Your task to perform on an android device: turn on javascript in the chrome app Image 0: 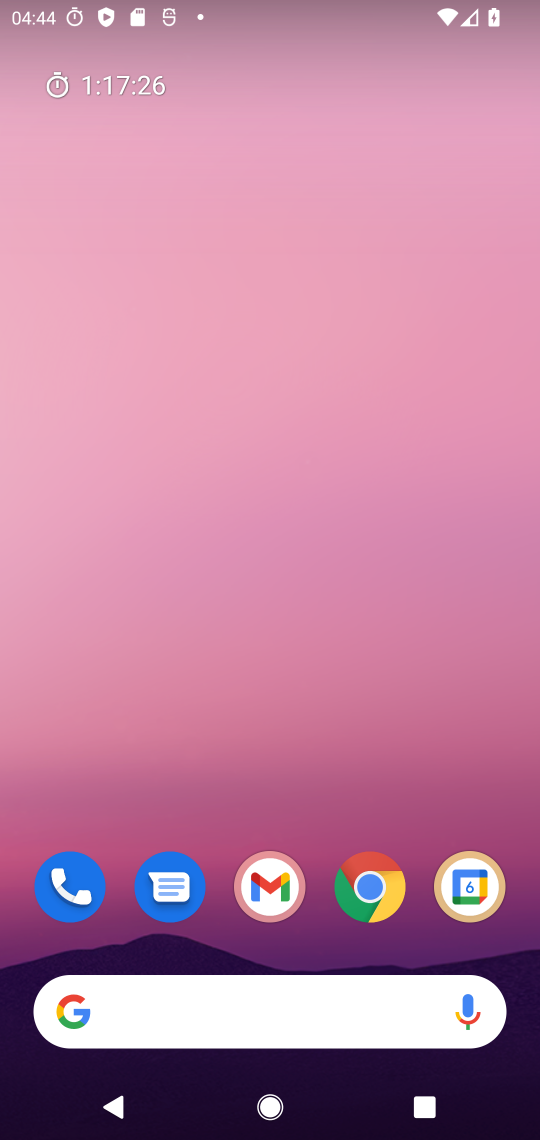
Step 0: press home button
Your task to perform on an android device: turn on javascript in the chrome app Image 1: 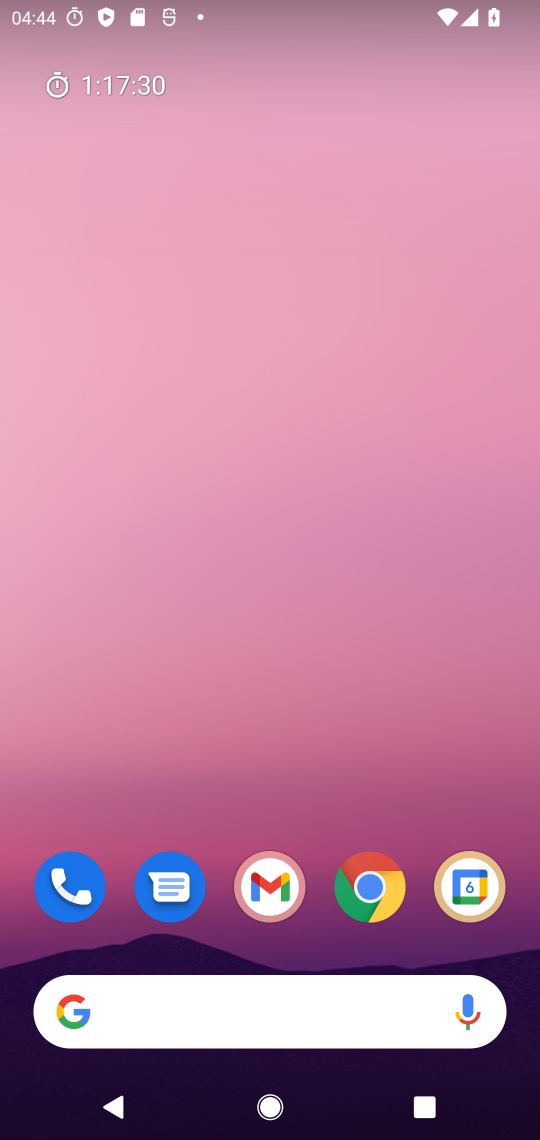
Step 1: drag from (385, 716) to (348, 222)
Your task to perform on an android device: turn on javascript in the chrome app Image 2: 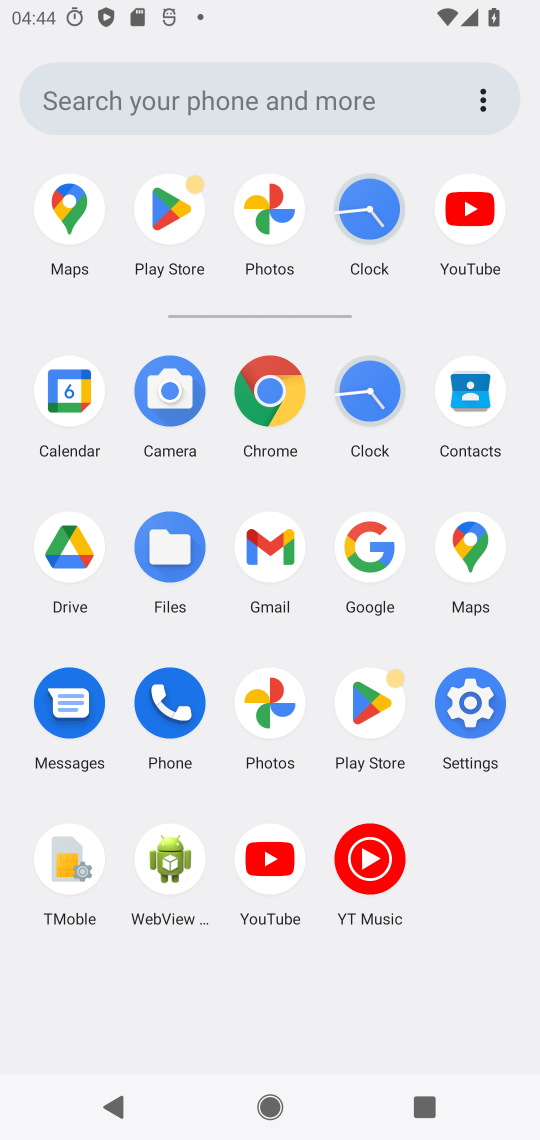
Step 2: click (275, 396)
Your task to perform on an android device: turn on javascript in the chrome app Image 3: 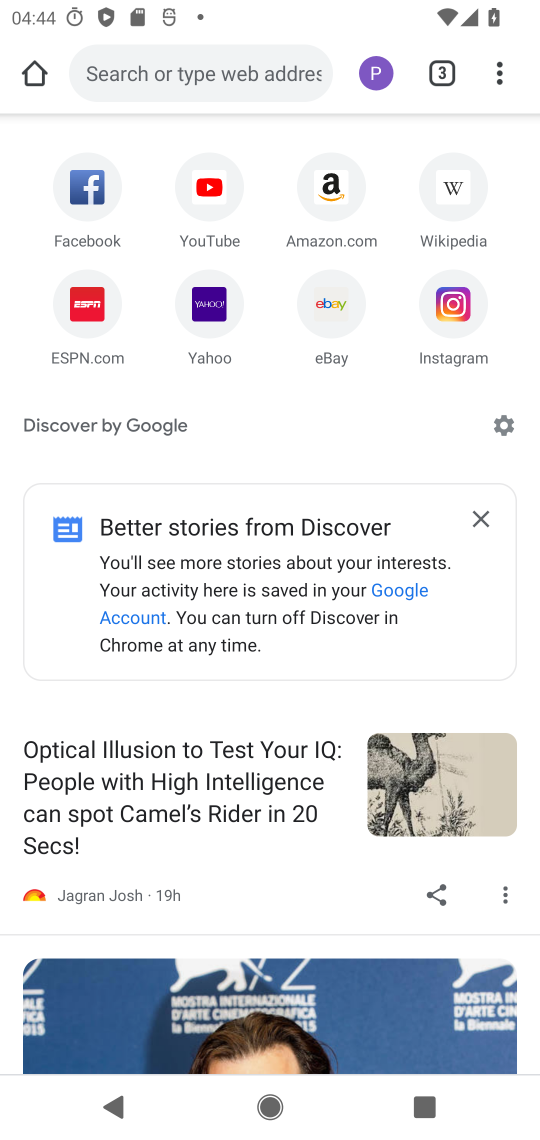
Step 3: click (498, 80)
Your task to perform on an android device: turn on javascript in the chrome app Image 4: 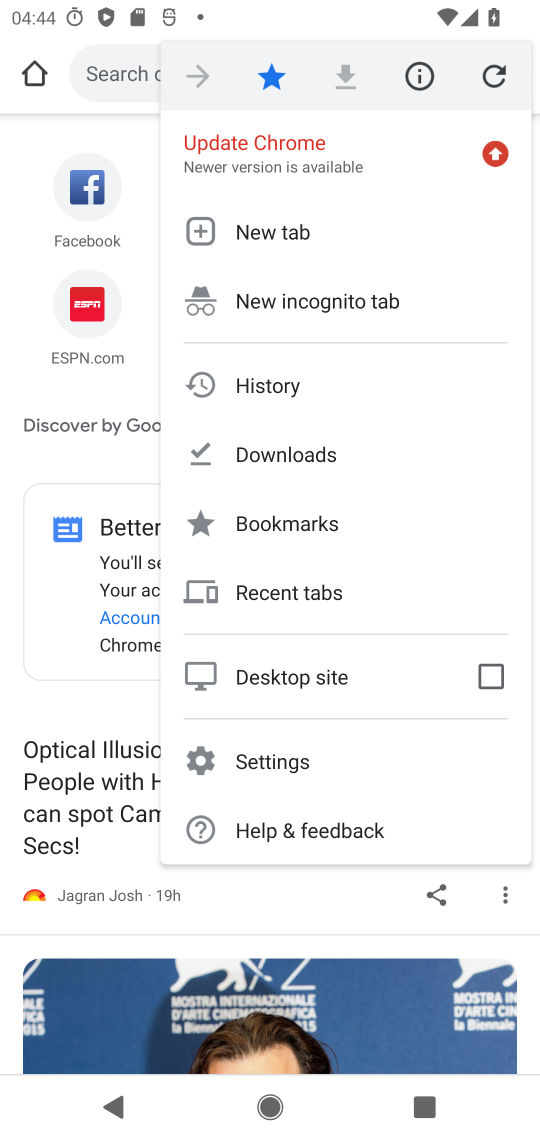
Step 4: click (352, 767)
Your task to perform on an android device: turn on javascript in the chrome app Image 5: 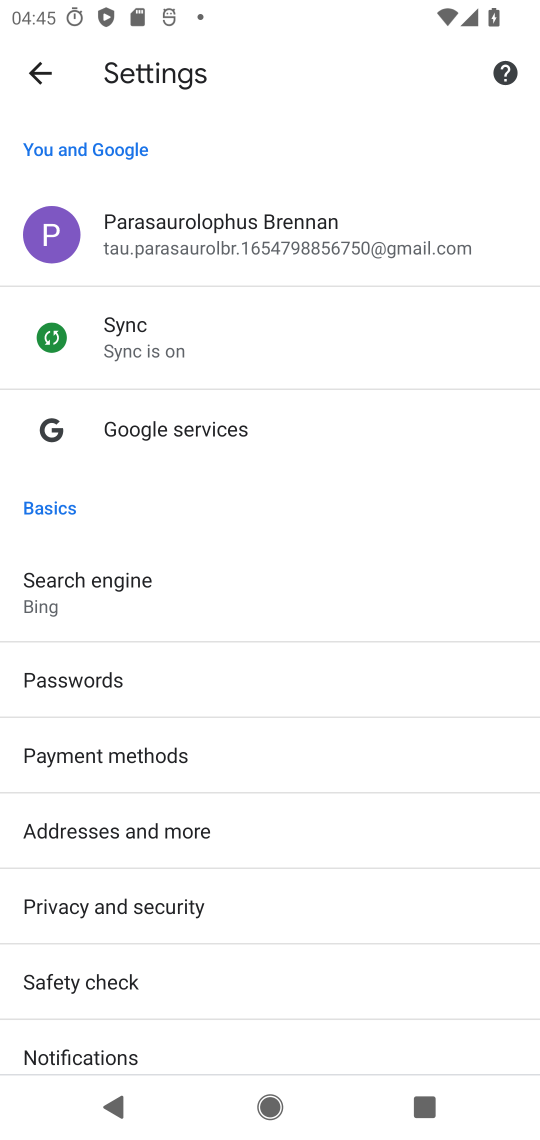
Step 5: drag from (347, 819) to (364, 619)
Your task to perform on an android device: turn on javascript in the chrome app Image 6: 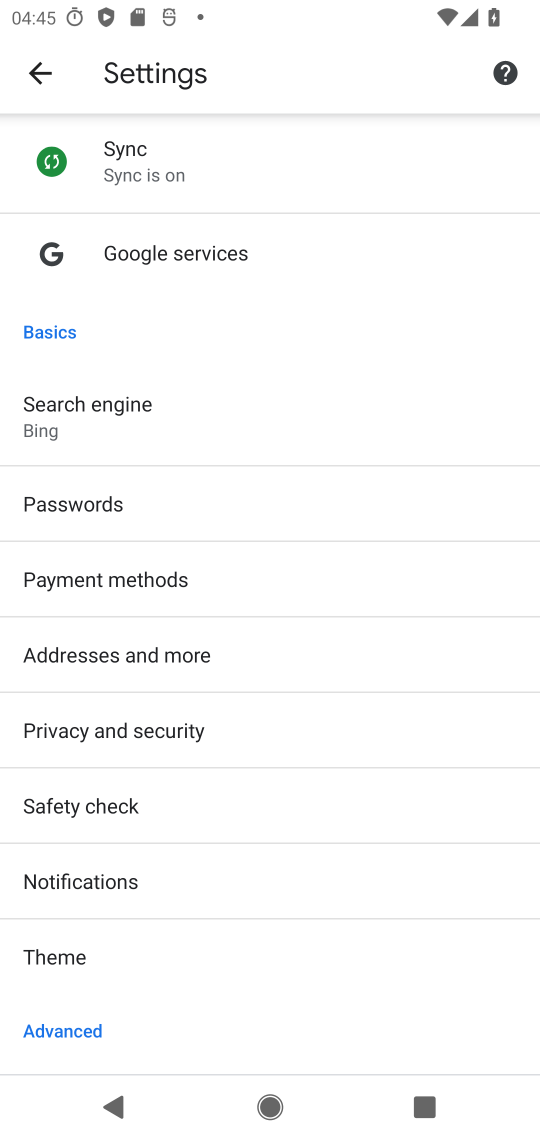
Step 6: drag from (343, 775) to (336, 588)
Your task to perform on an android device: turn on javascript in the chrome app Image 7: 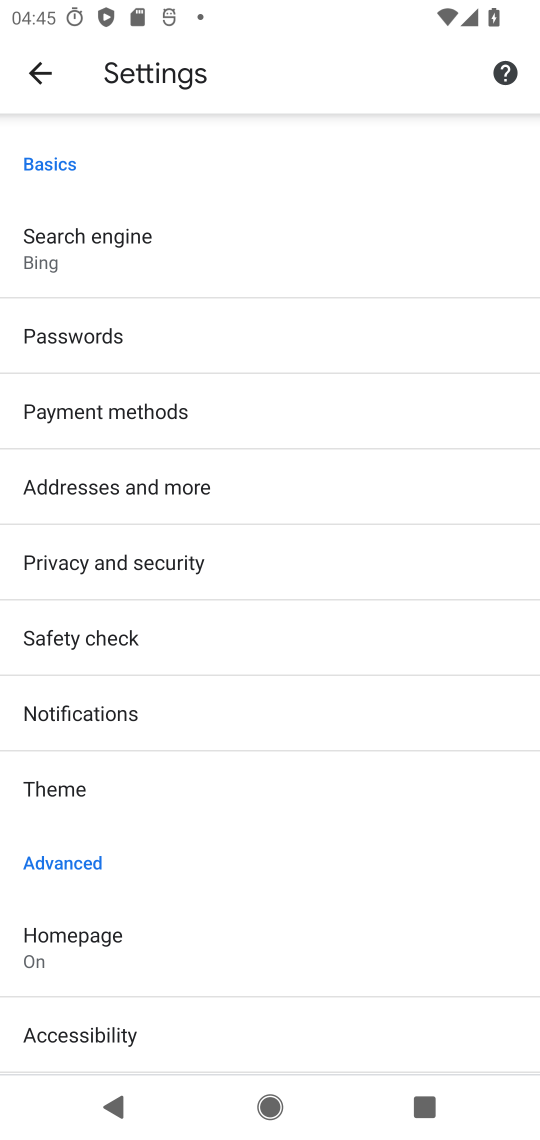
Step 7: drag from (357, 719) to (333, 506)
Your task to perform on an android device: turn on javascript in the chrome app Image 8: 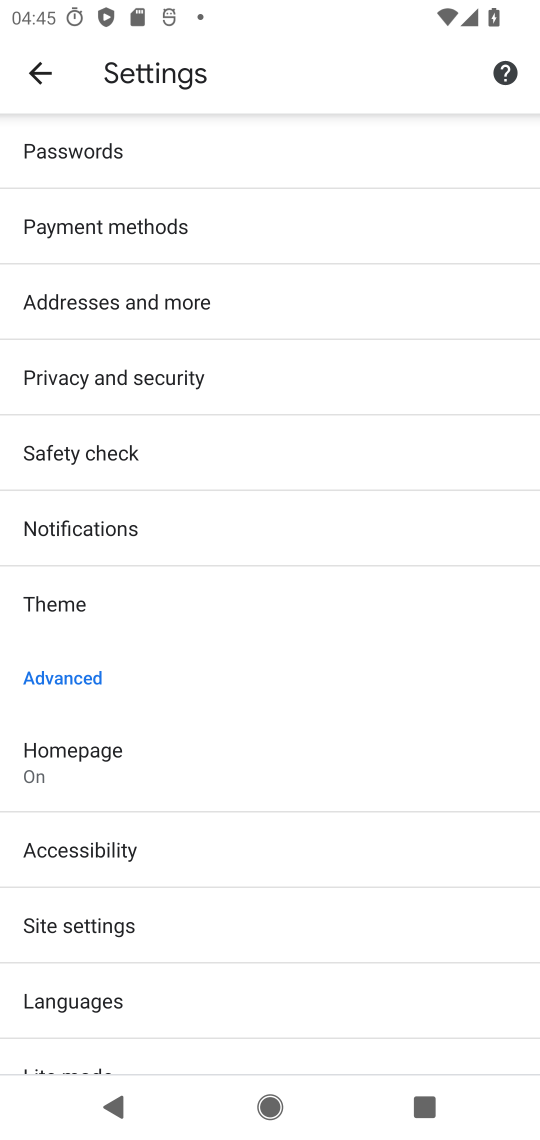
Step 8: drag from (353, 703) to (359, 502)
Your task to perform on an android device: turn on javascript in the chrome app Image 9: 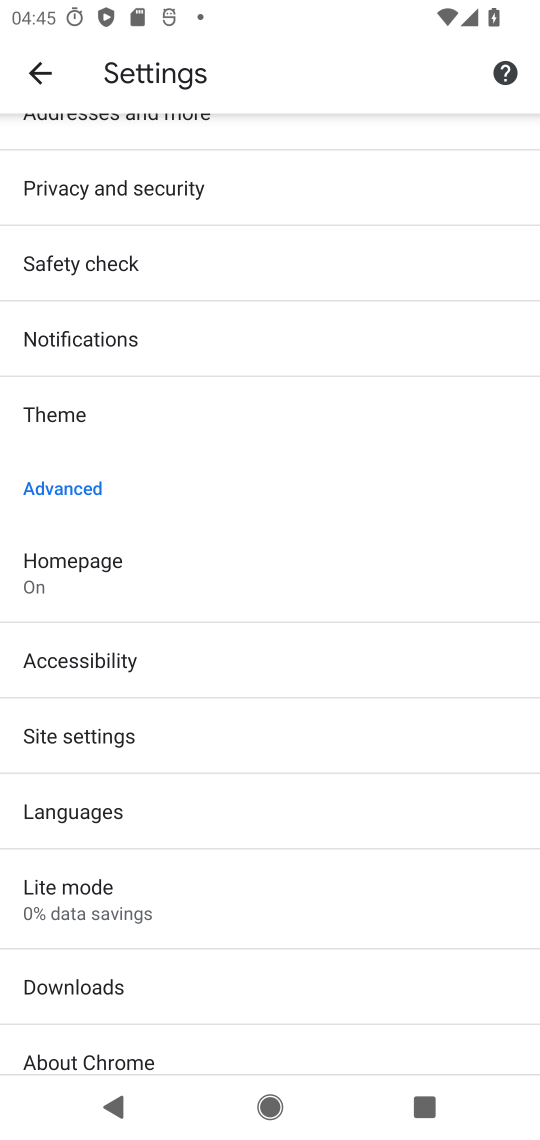
Step 9: drag from (336, 766) to (315, 536)
Your task to perform on an android device: turn on javascript in the chrome app Image 10: 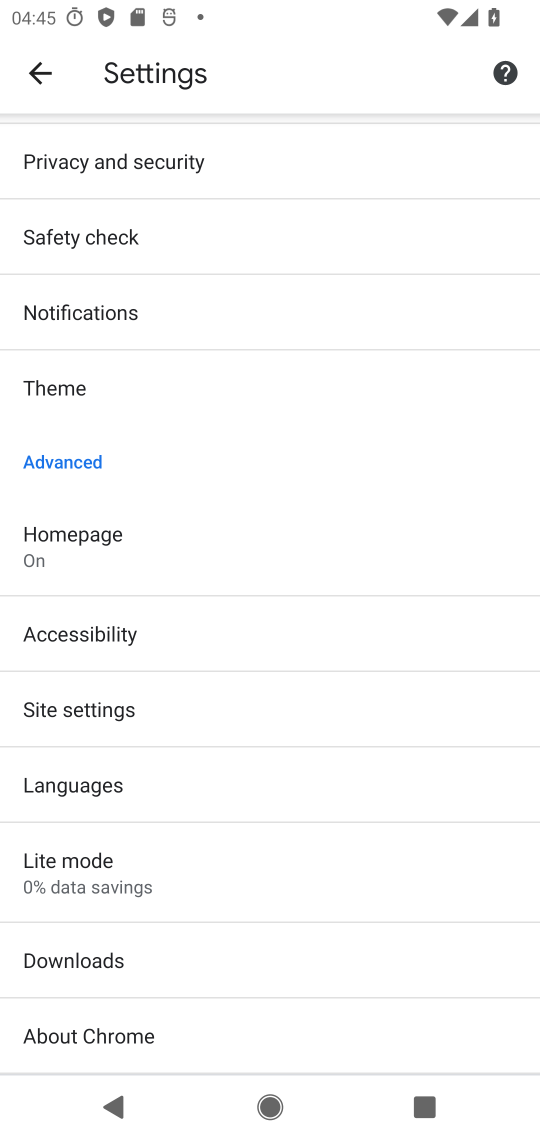
Step 10: click (307, 698)
Your task to perform on an android device: turn on javascript in the chrome app Image 11: 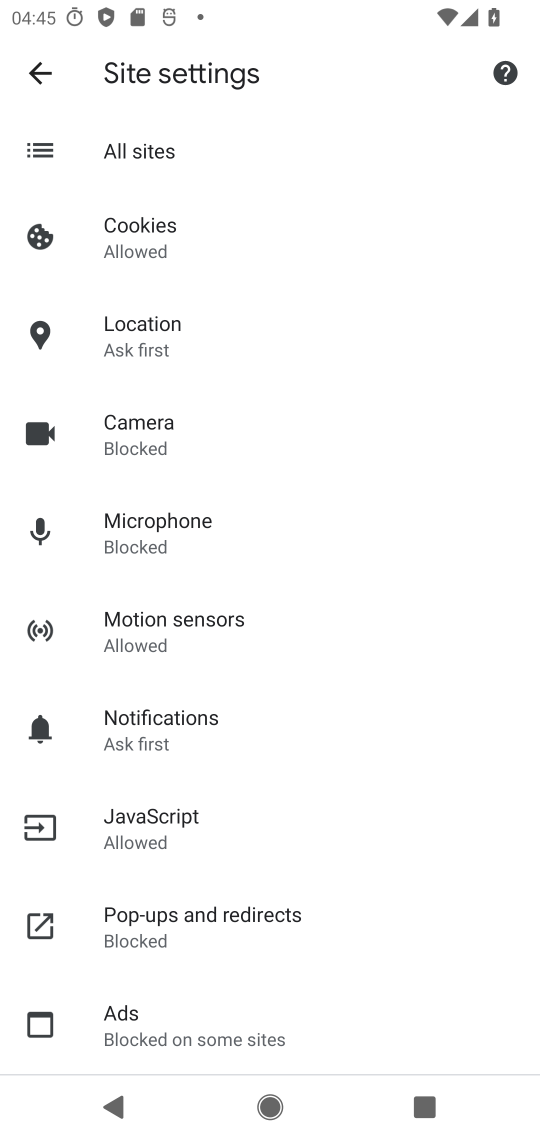
Step 11: drag from (329, 727) to (343, 524)
Your task to perform on an android device: turn on javascript in the chrome app Image 12: 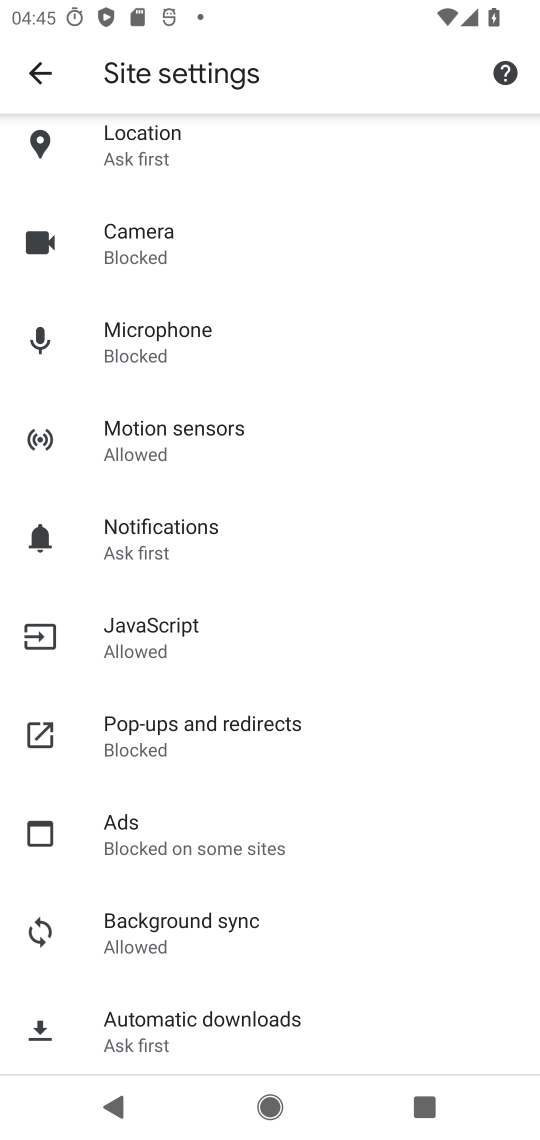
Step 12: drag from (360, 383) to (371, 591)
Your task to perform on an android device: turn on javascript in the chrome app Image 13: 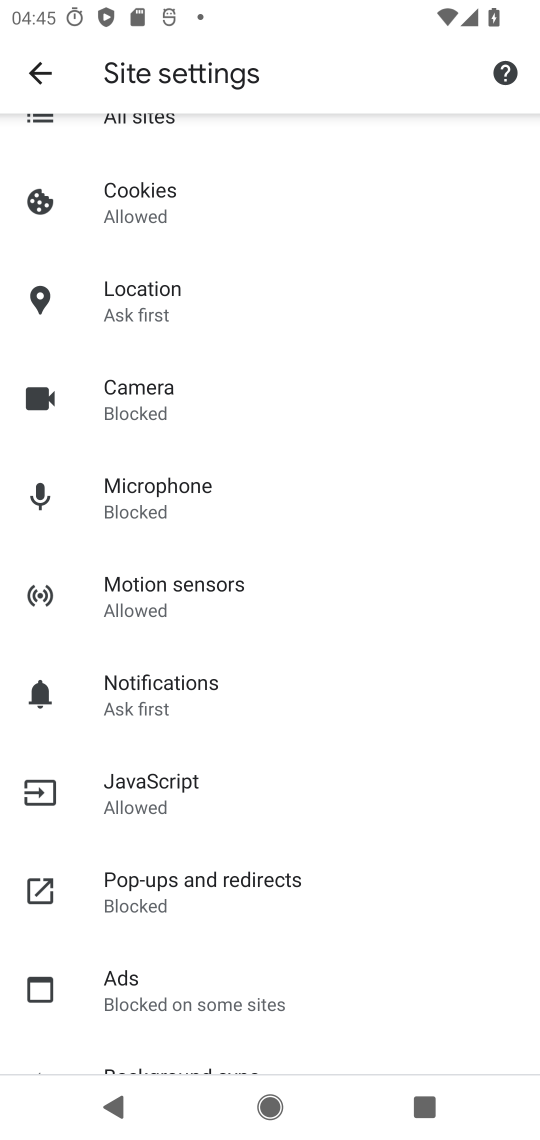
Step 13: click (250, 825)
Your task to perform on an android device: turn on javascript in the chrome app Image 14: 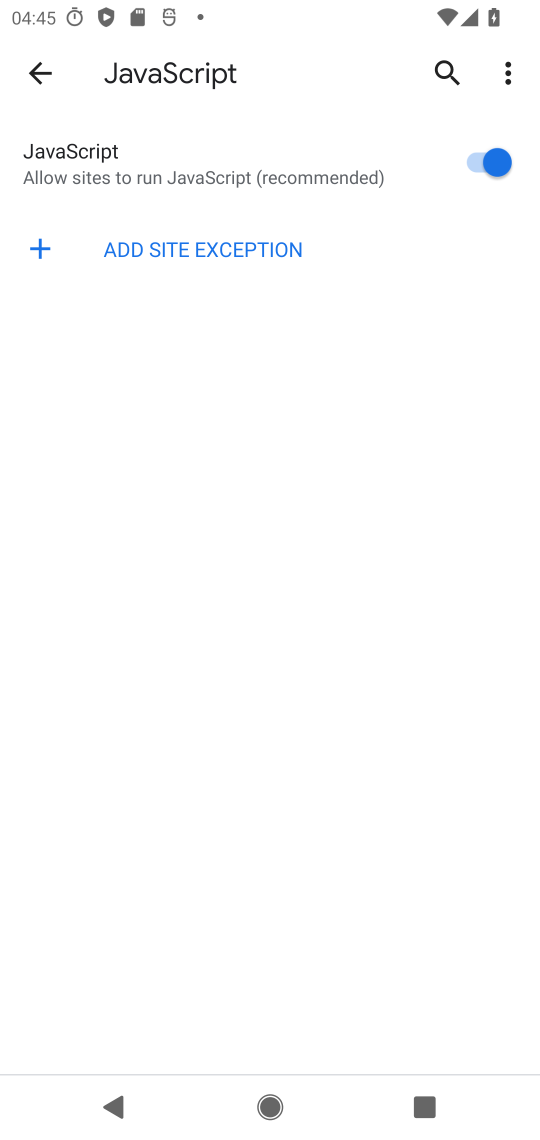
Step 14: task complete